Your task to perform on an android device: Open battery settings Image 0: 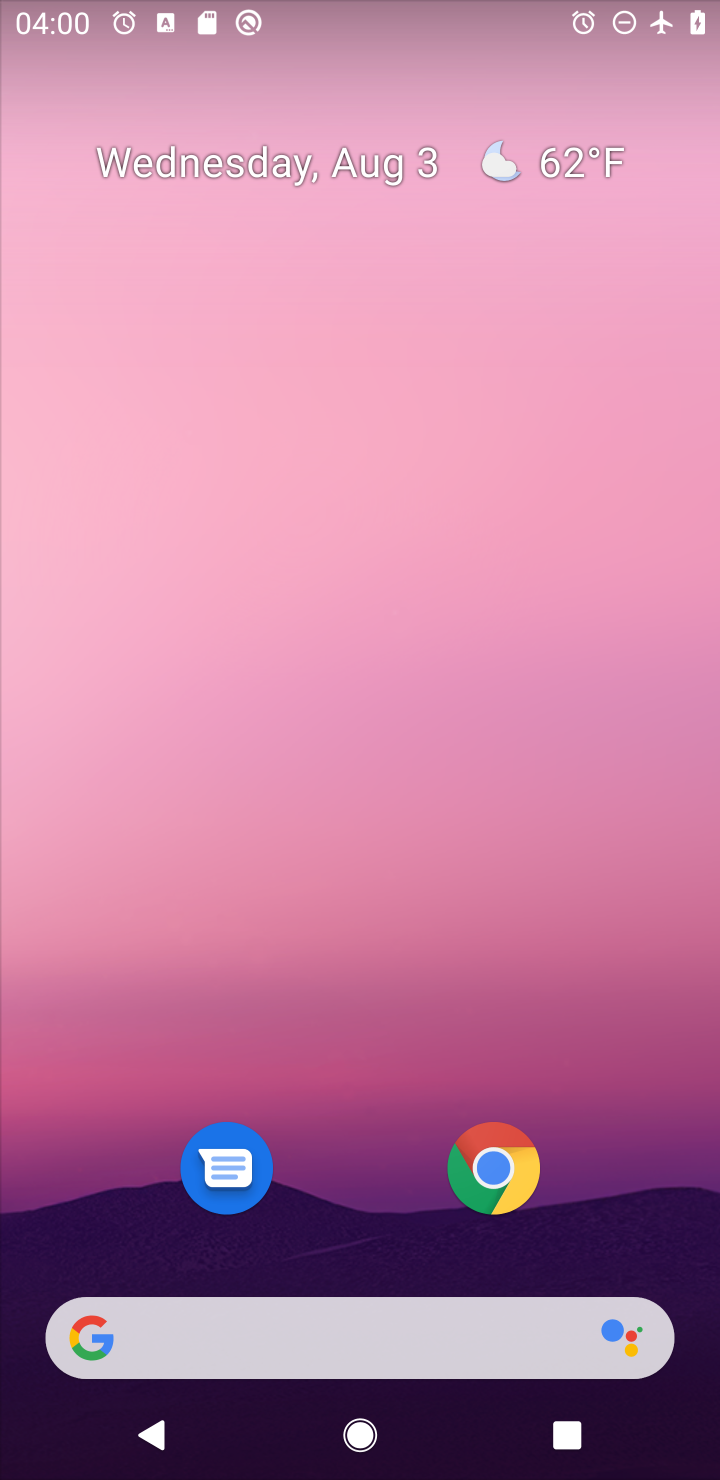
Step 0: drag from (677, 1253) to (626, 246)
Your task to perform on an android device: Open battery settings Image 1: 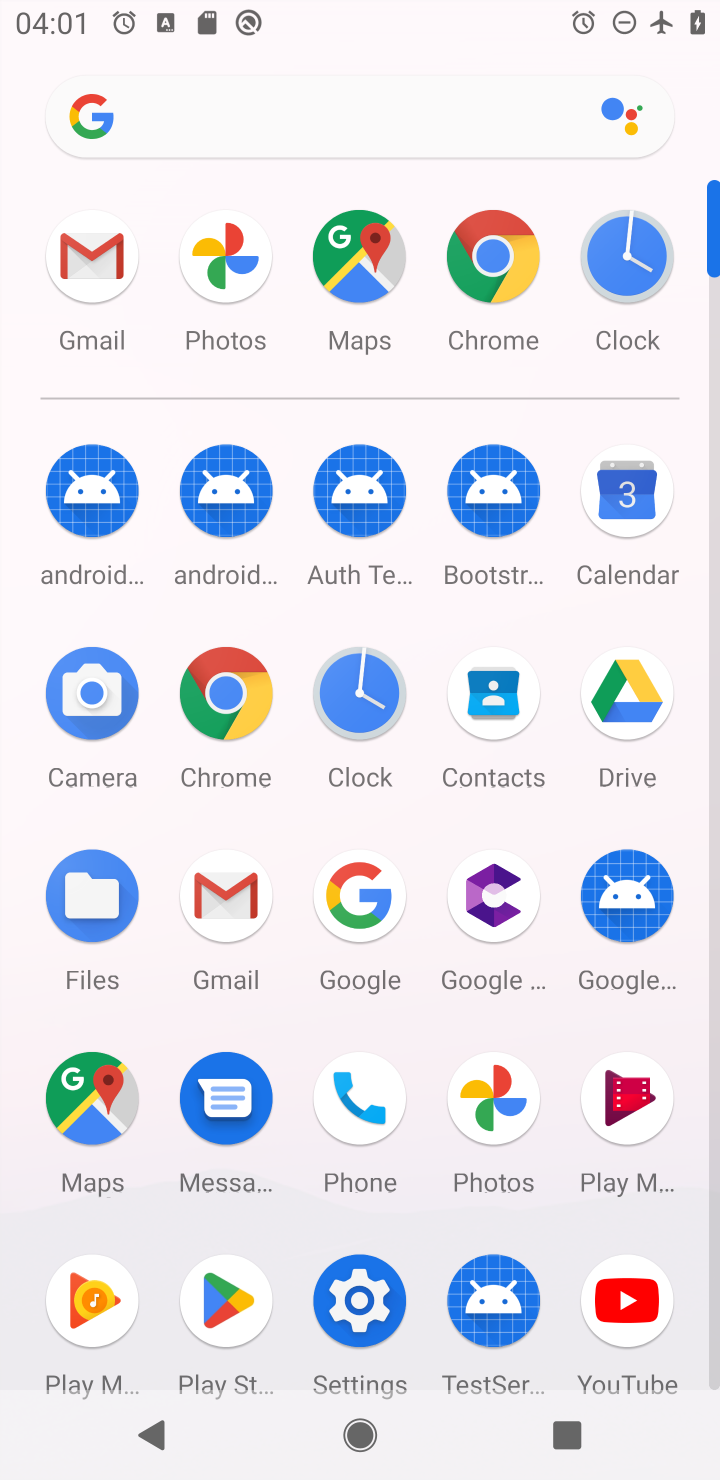
Step 1: click (359, 1298)
Your task to perform on an android device: Open battery settings Image 2: 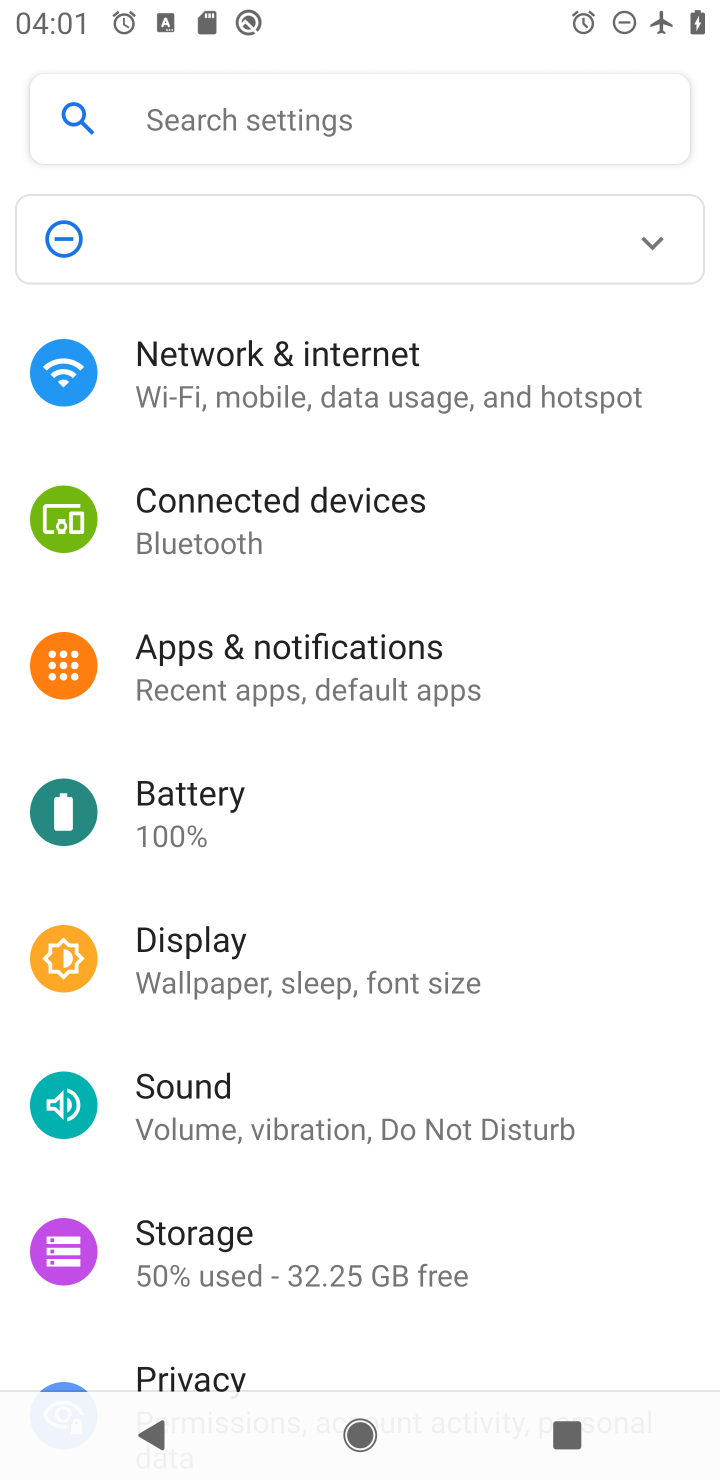
Step 2: click (189, 801)
Your task to perform on an android device: Open battery settings Image 3: 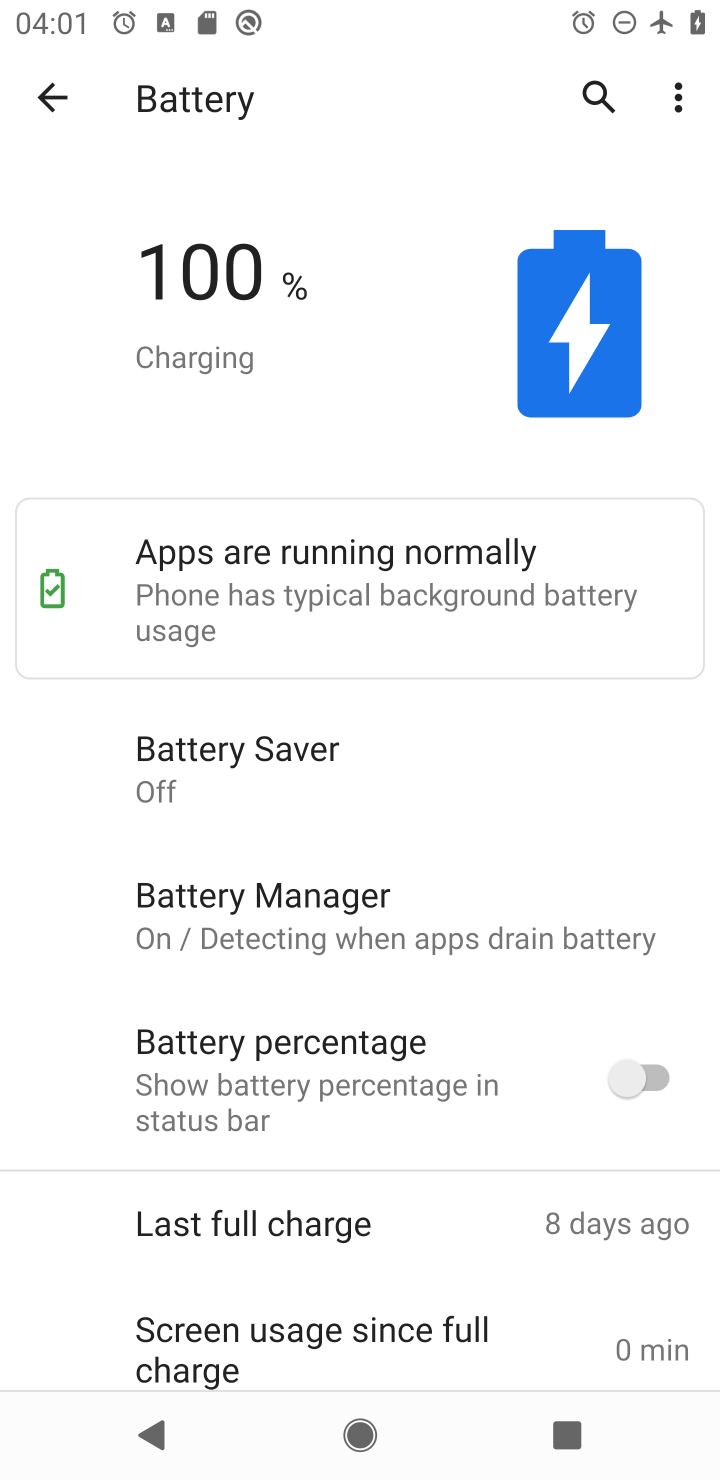
Step 3: task complete